Your task to perform on an android device: Turn off the flashlight Image 0: 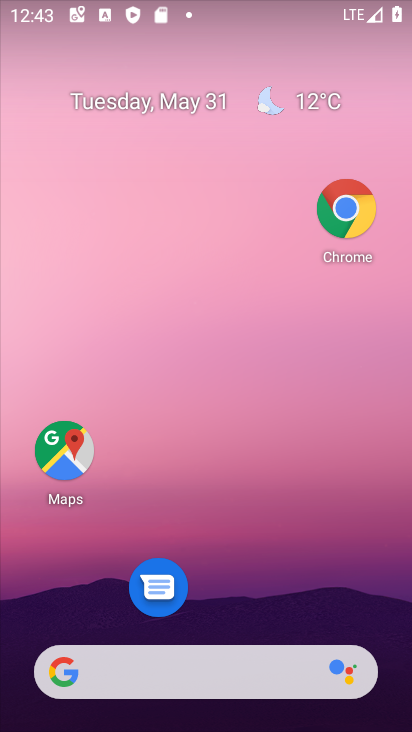
Step 0: drag from (229, 605) to (272, 8)
Your task to perform on an android device: Turn off the flashlight Image 1: 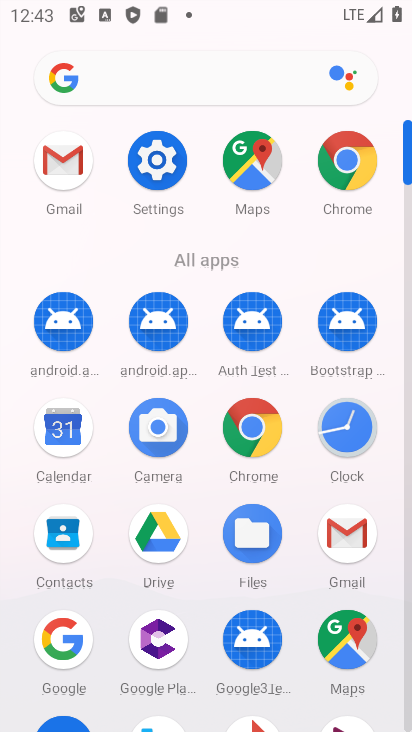
Step 1: click (164, 173)
Your task to perform on an android device: Turn off the flashlight Image 2: 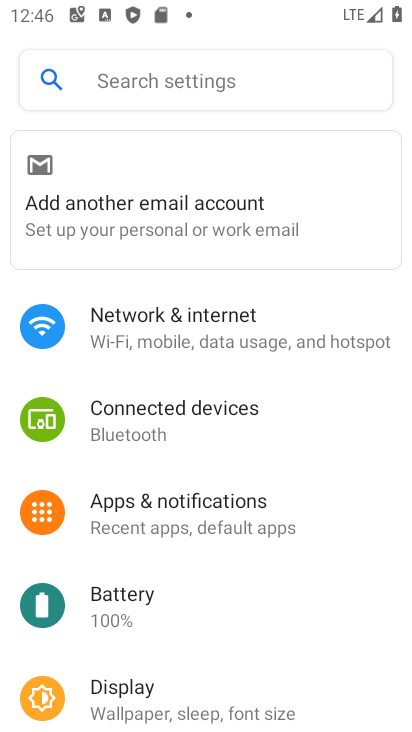
Step 2: task complete